Your task to perform on an android device: turn off notifications in google photos Image 0: 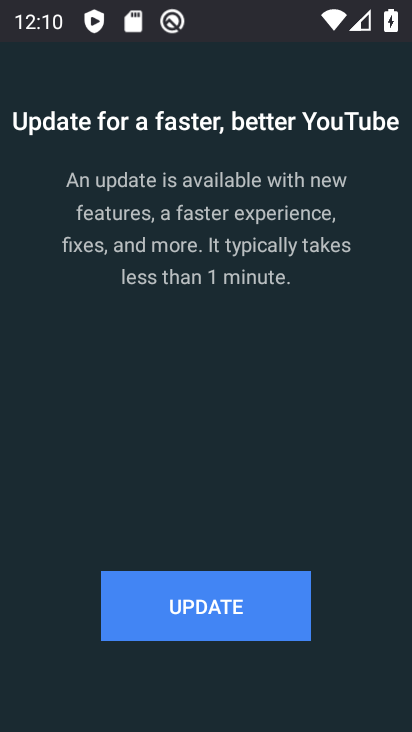
Step 0: press home button
Your task to perform on an android device: turn off notifications in google photos Image 1: 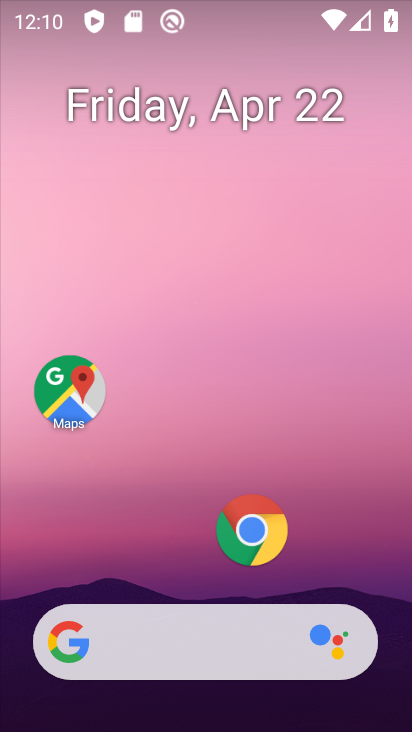
Step 1: drag from (234, 679) to (234, 85)
Your task to perform on an android device: turn off notifications in google photos Image 2: 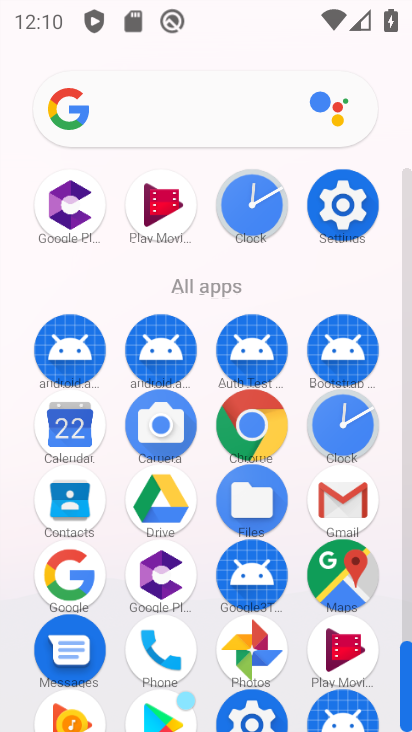
Step 2: click (255, 645)
Your task to perform on an android device: turn off notifications in google photos Image 3: 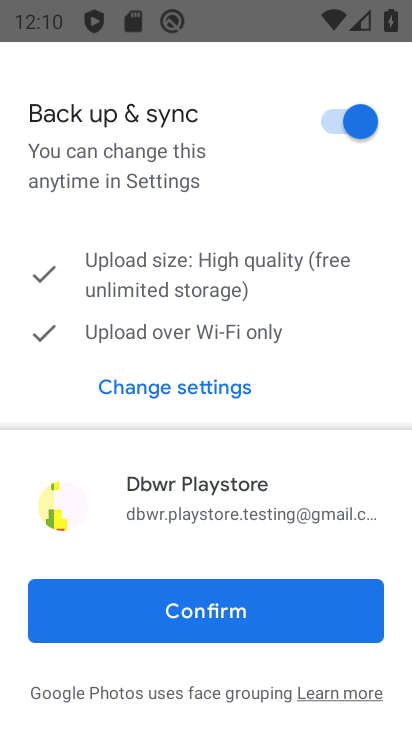
Step 3: click (202, 608)
Your task to perform on an android device: turn off notifications in google photos Image 4: 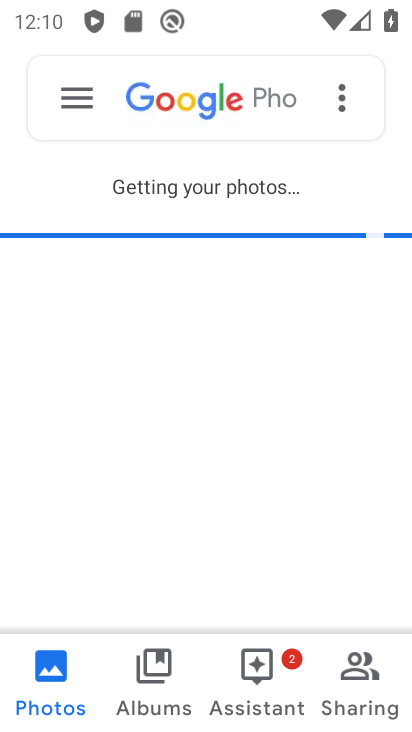
Step 4: click (79, 100)
Your task to perform on an android device: turn off notifications in google photos Image 5: 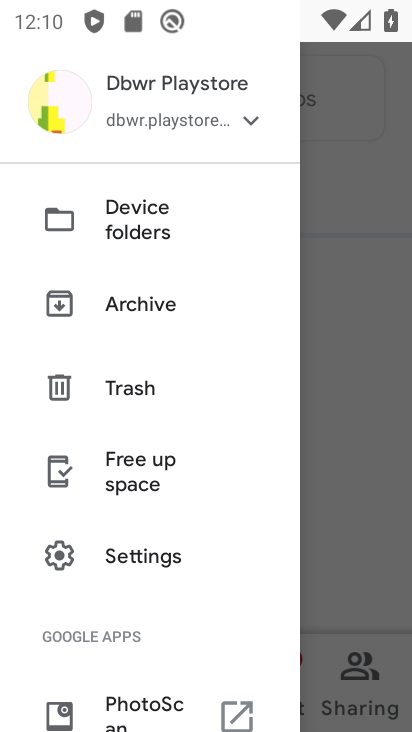
Step 5: click (147, 553)
Your task to perform on an android device: turn off notifications in google photos Image 6: 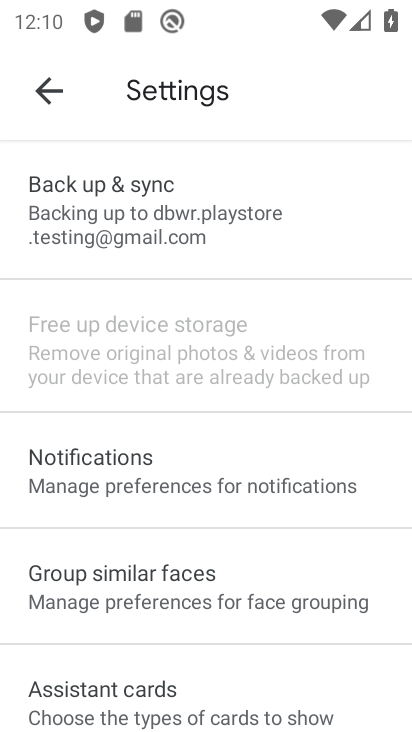
Step 6: click (147, 480)
Your task to perform on an android device: turn off notifications in google photos Image 7: 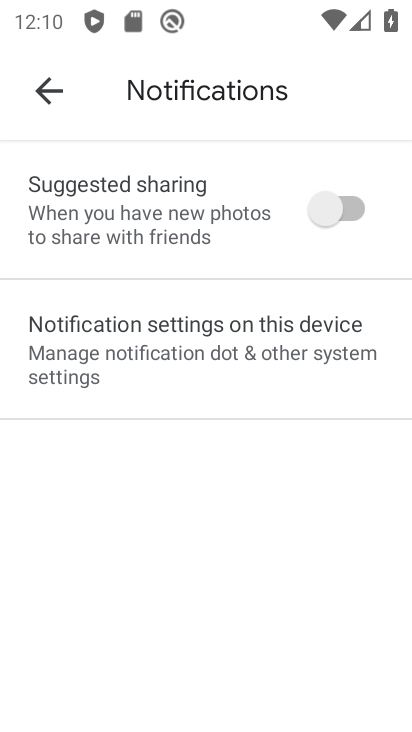
Step 7: click (182, 335)
Your task to perform on an android device: turn off notifications in google photos Image 8: 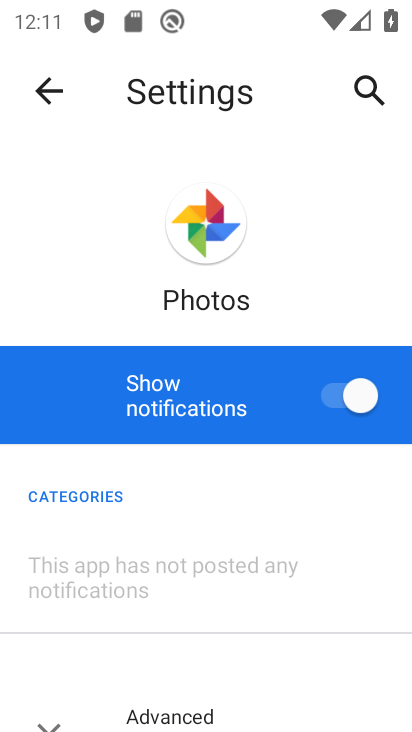
Step 8: click (334, 396)
Your task to perform on an android device: turn off notifications in google photos Image 9: 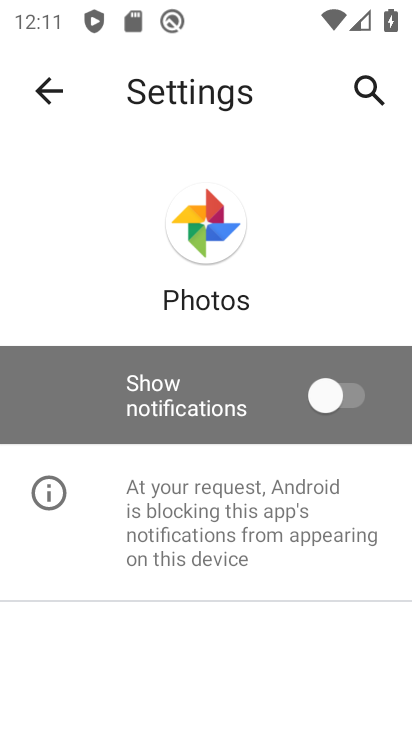
Step 9: task complete